Your task to perform on an android device: open the mobile data screen to see how much data has been used Image 0: 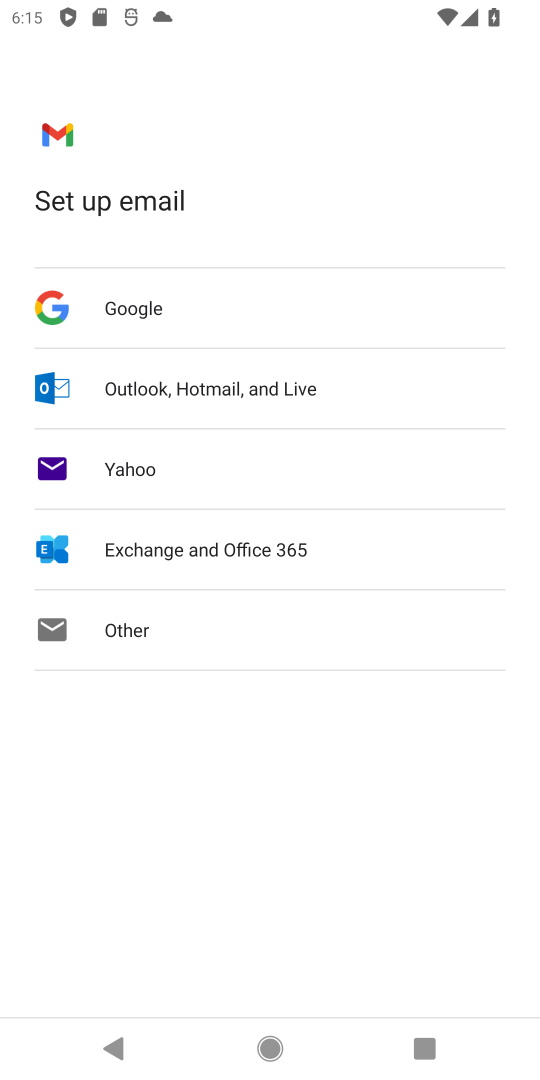
Step 0: press home button
Your task to perform on an android device: open the mobile data screen to see how much data has been used Image 1: 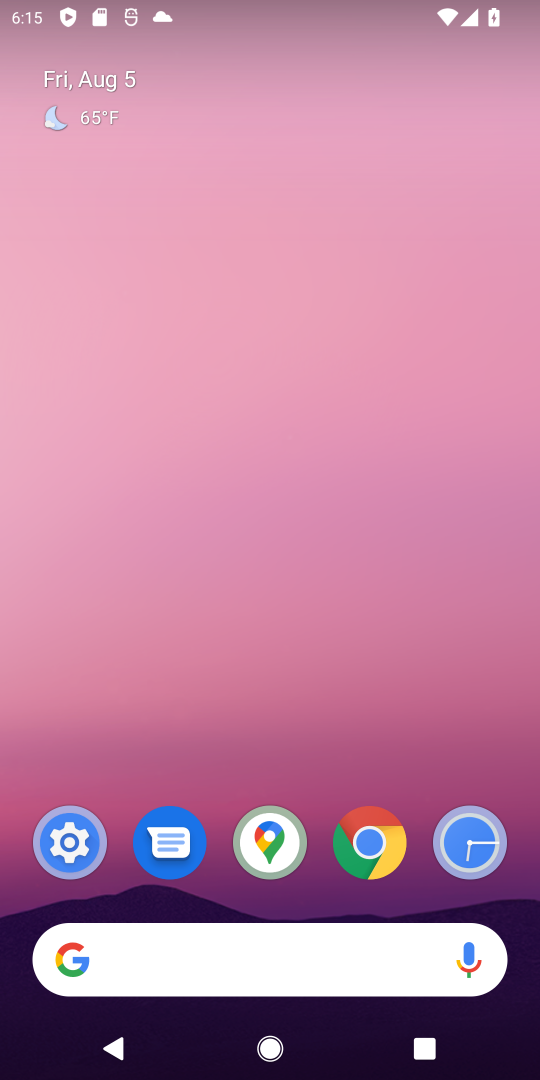
Step 1: drag from (54, 645) to (282, 65)
Your task to perform on an android device: open the mobile data screen to see how much data has been used Image 2: 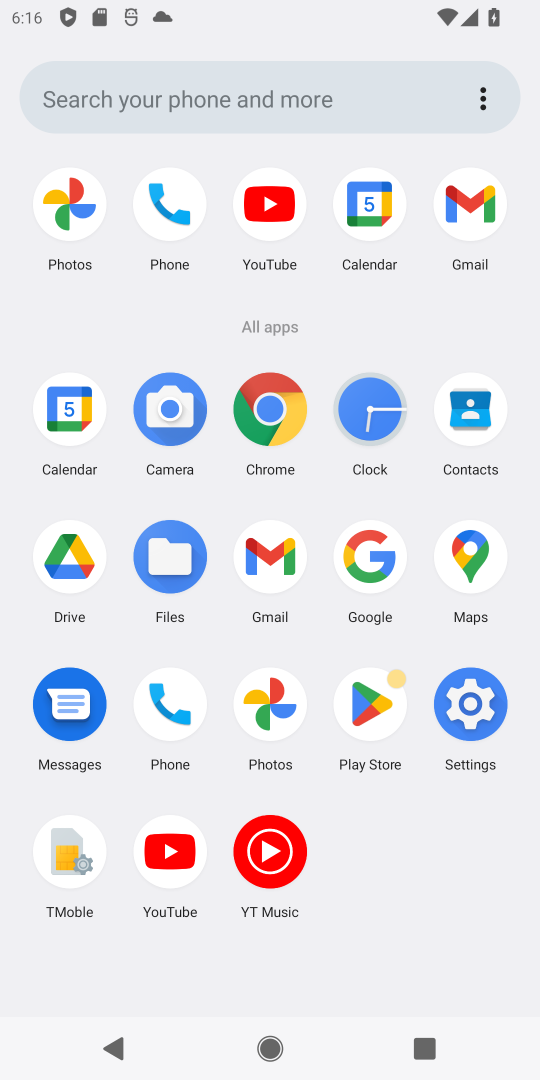
Step 2: click (451, 704)
Your task to perform on an android device: open the mobile data screen to see how much data has been used Image 3: 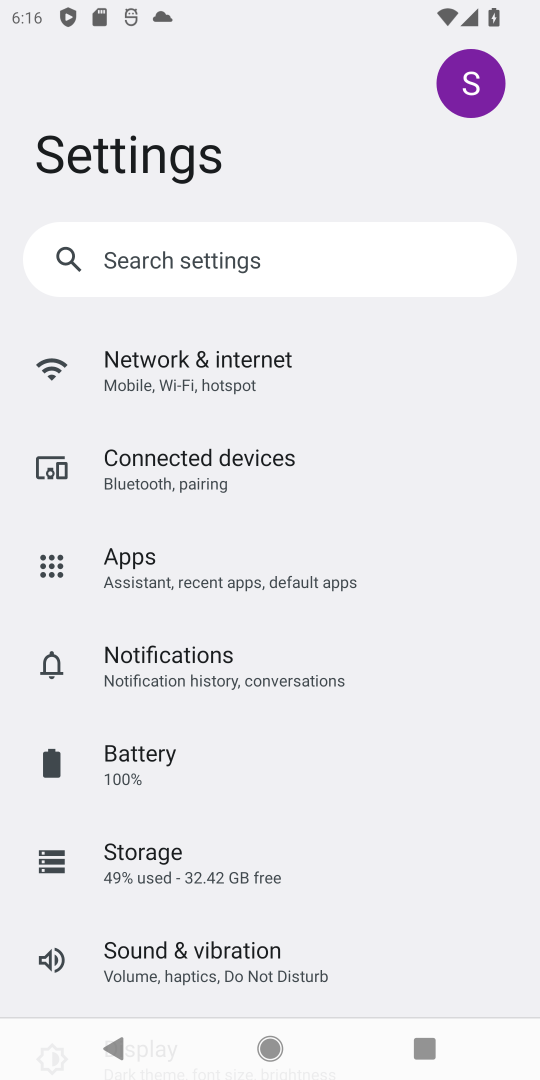
Step 3: click (258, 341)
Your task to perform on an android device: open the mobile data screen to see how much data has been used Image 4: 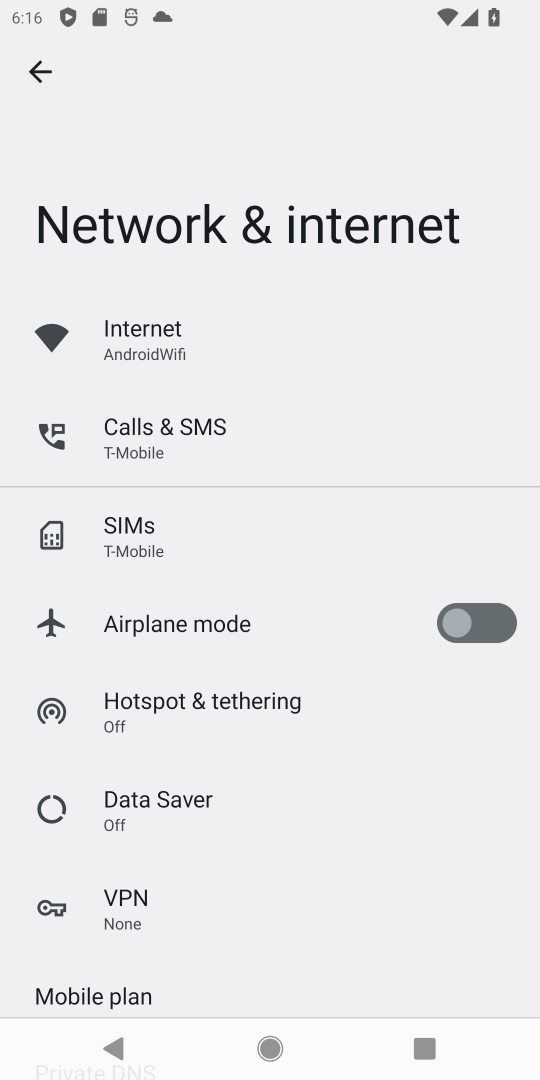
Step 4: click (143, 329)
Your task to perform on an android device: open the mobile data screen to see how much data has been used Image 5: 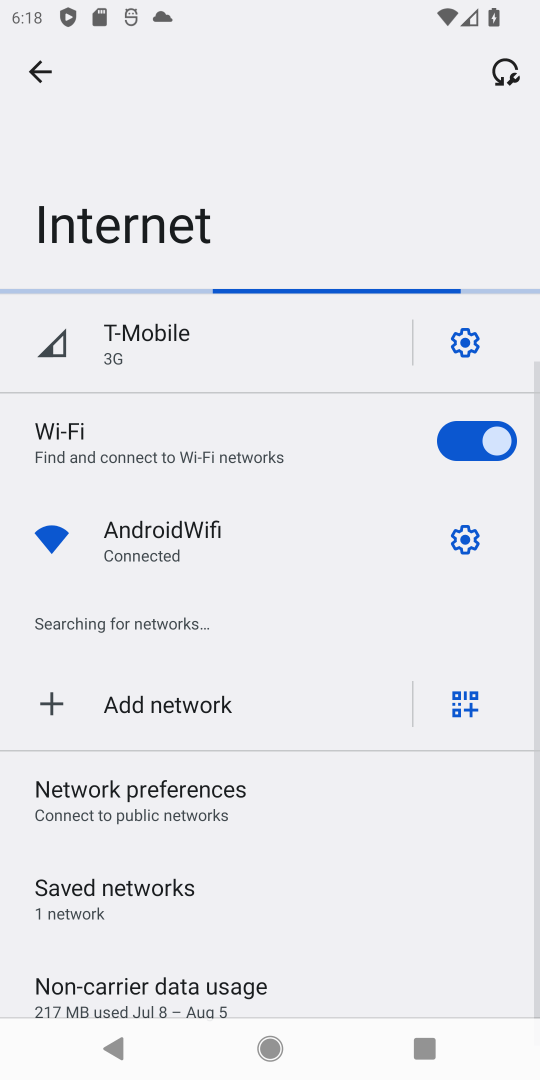
Step 5: task complete